Your task to perform on an android device: Go to sound settings Image 0: 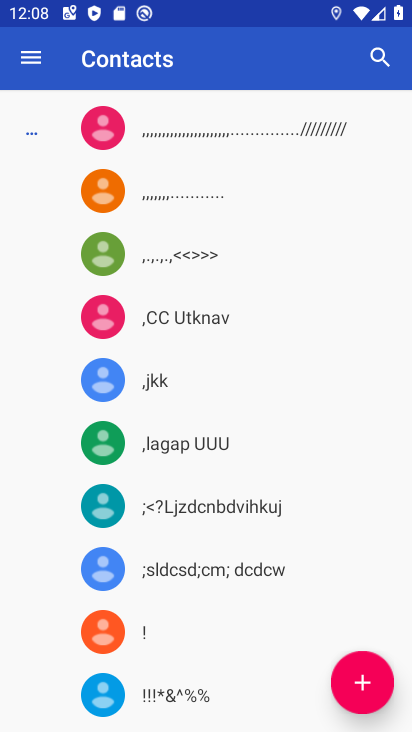
Step 0: press home button
Your task to perform on an android device: Go to sound settings Image 1: 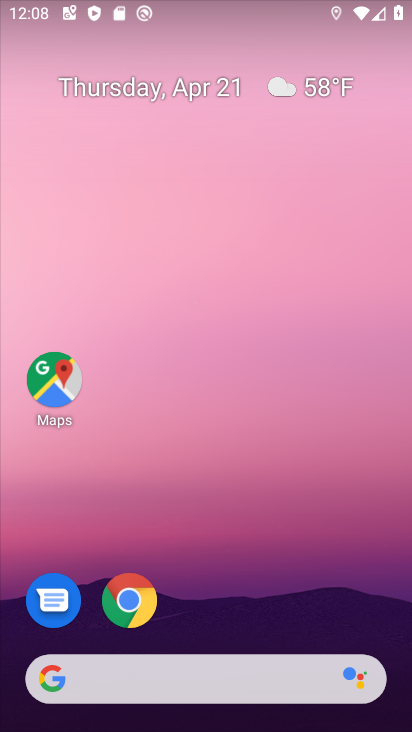
Step 1: drag from (215, 646) to (221, 3)
Your task to perform on an android device: Go to sound settings Image 2: 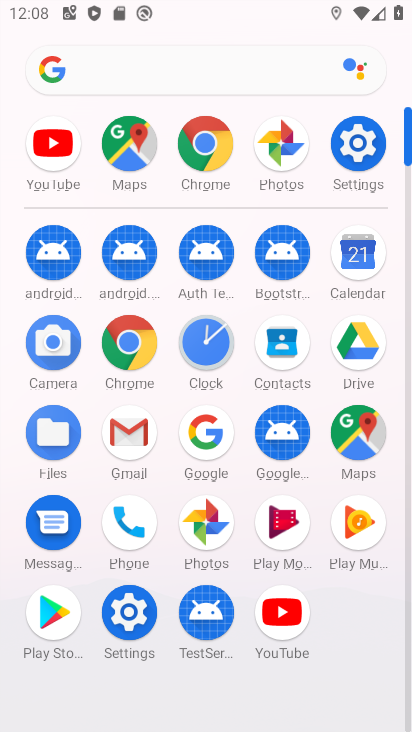
Step 2: click (348, 132)
Your task to perform on an android device: Go to sound settings Image 3: 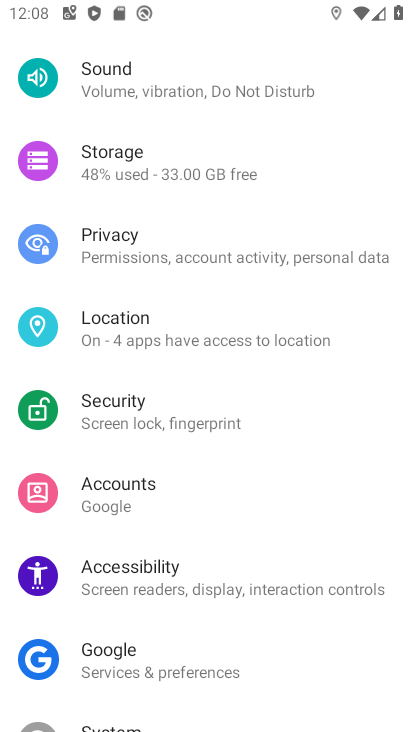
Step 3: click (127, 91)
Your task to perform on an android device: Go to sound settings Image 4: 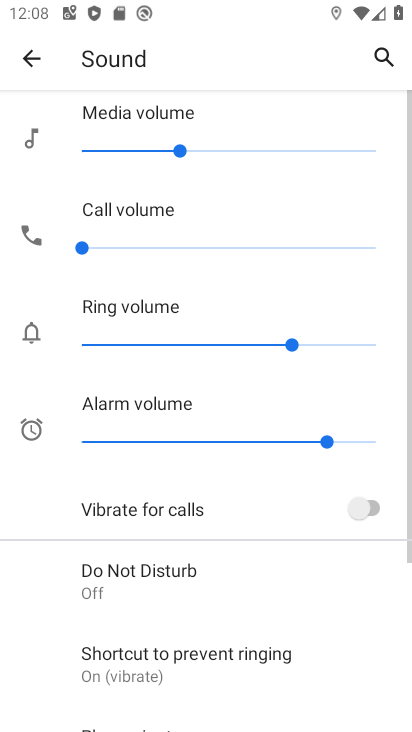
Step 4: drag from (176, 484) to (157, 117)
Your task to perform on an android device: Go to sound settings Image 5: 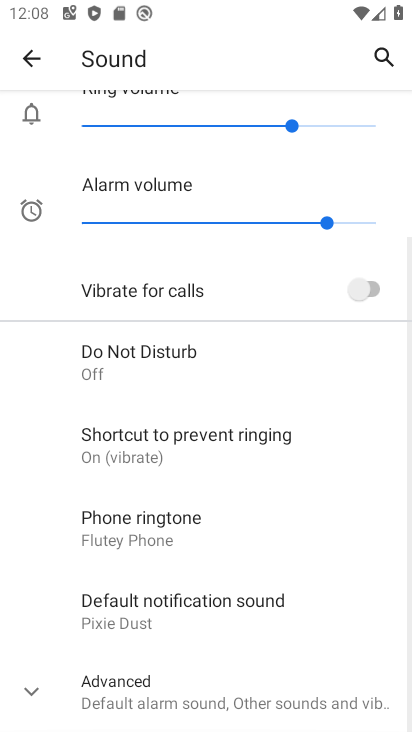
Step 5: drag from (212, 541) to (177, 125)
Your task to perform on an android device: Go to sound settings Image 6: 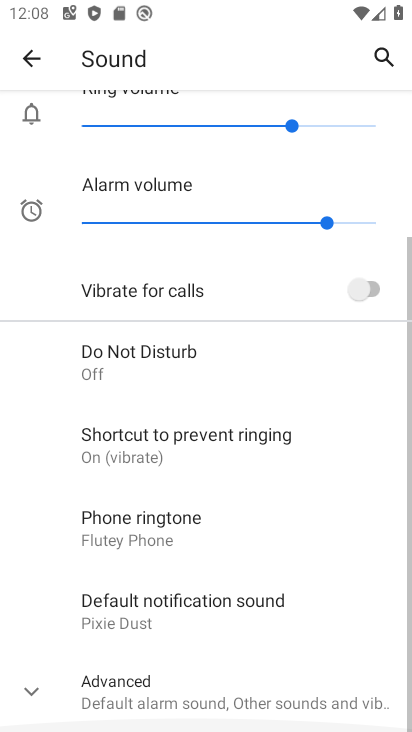
Step 6: click (147, 685)
Your task to perform on an android device: Go to sound settings Image 7: 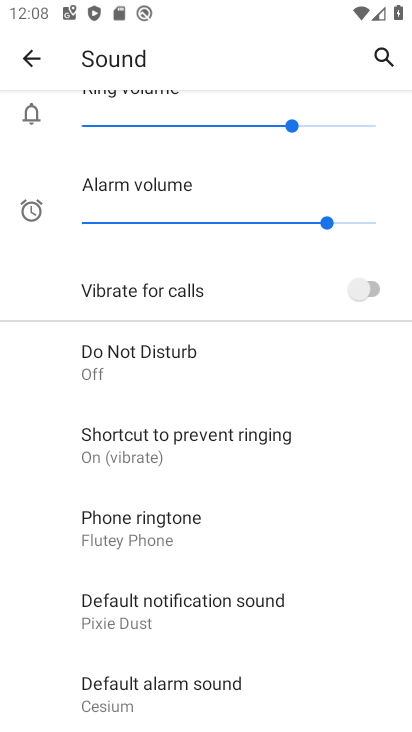
Step 7: task complete